Your task to perform on an android device: Go to sound settings Image 0: 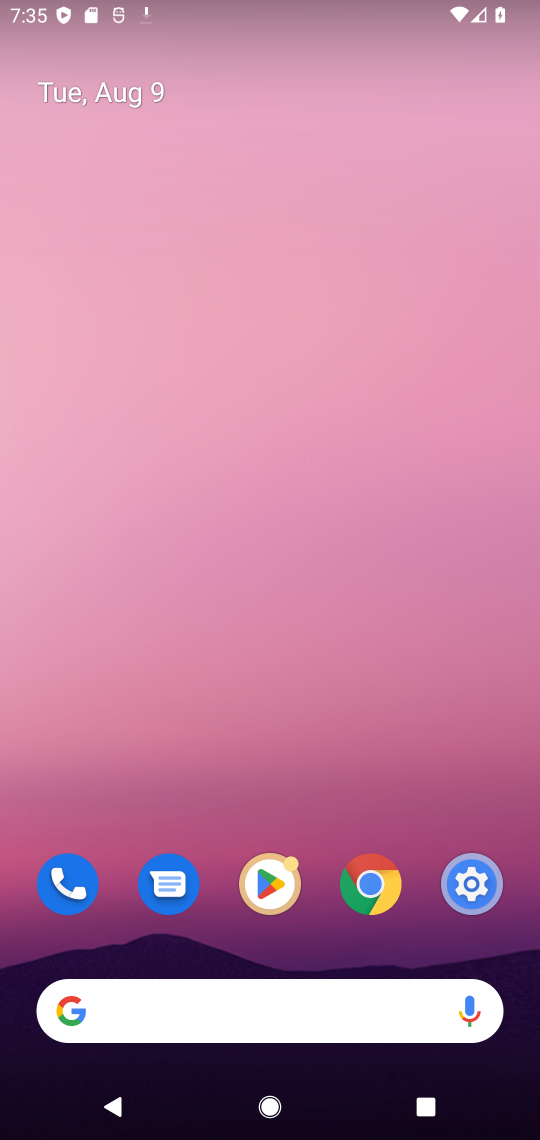
Step 0: drag from (426, 827) to (224, 225)
Your task to perform on an android device: Go to sound settings Image 1: 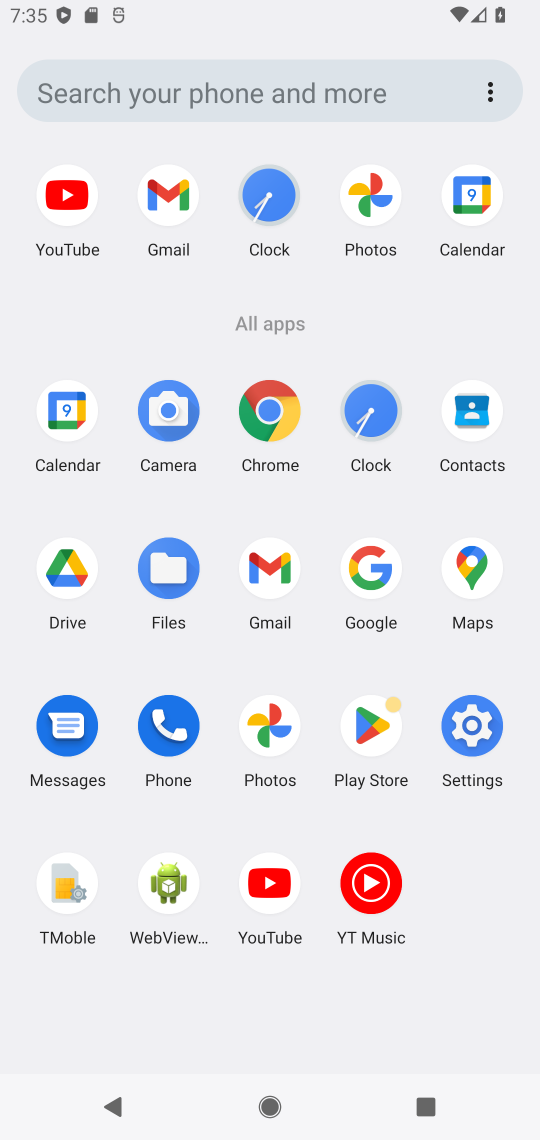
Step 1: click (437, 754)
Your task to perform on an android device: Go to sound settings Image 2: 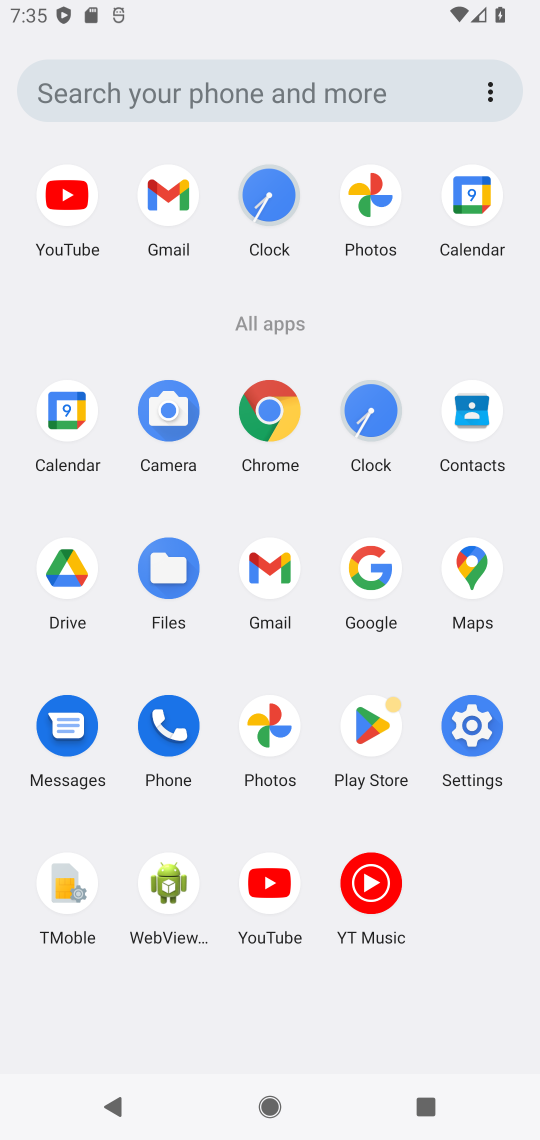
Step 2: click (437, 754)
Your task to perform on an android device: Go to sound settings Image 3: 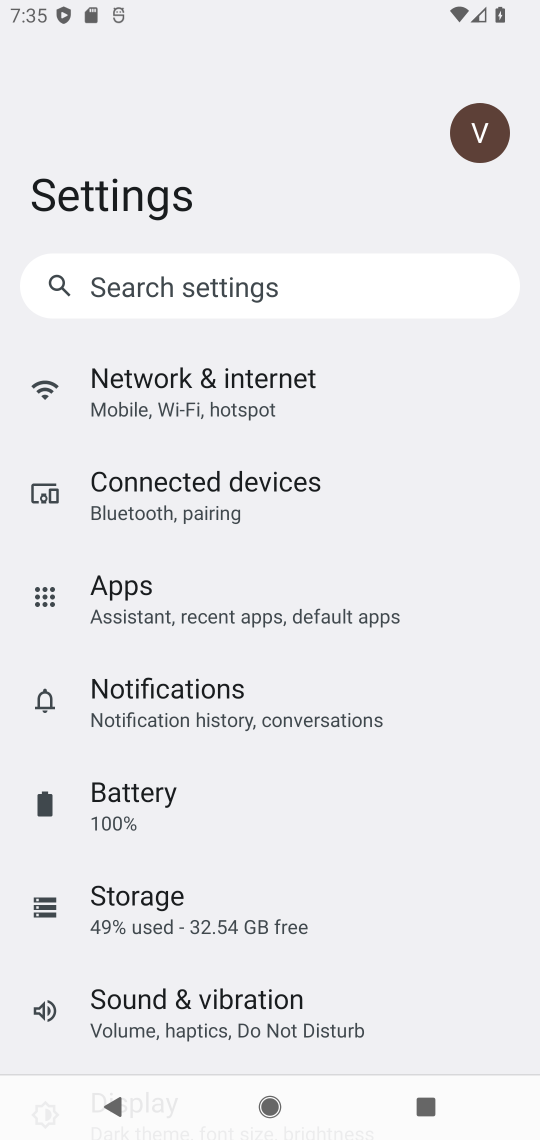
Step 3: drag from (425, 835) to (384, 759)
Your task to perform on an android device: Go to sound settings Image 4: 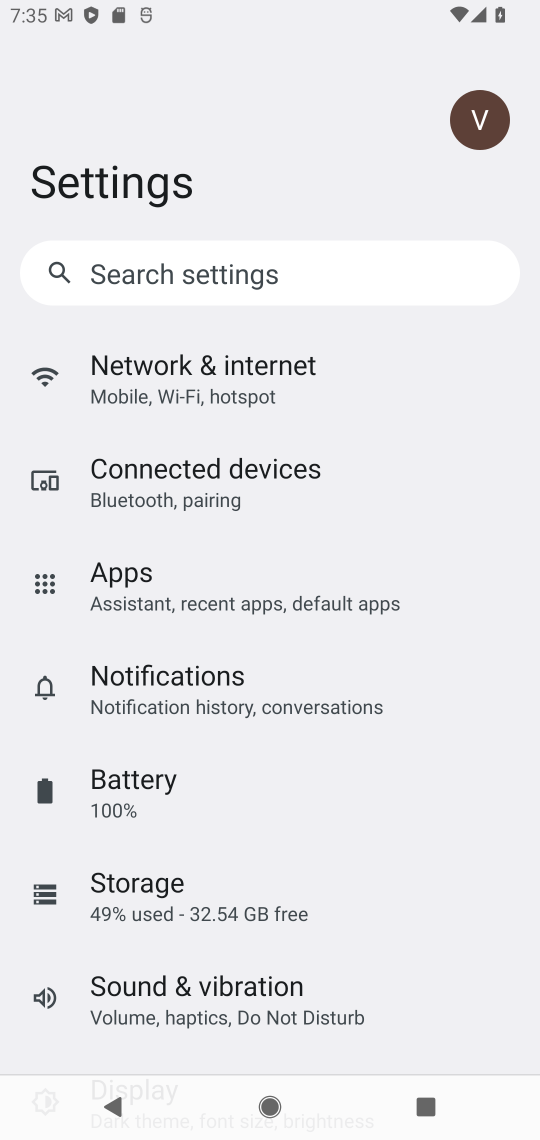
Step 4: drag from (371, 908) to (162, 258)
Your task to perform on an android device: Go to sound settings Image 5: 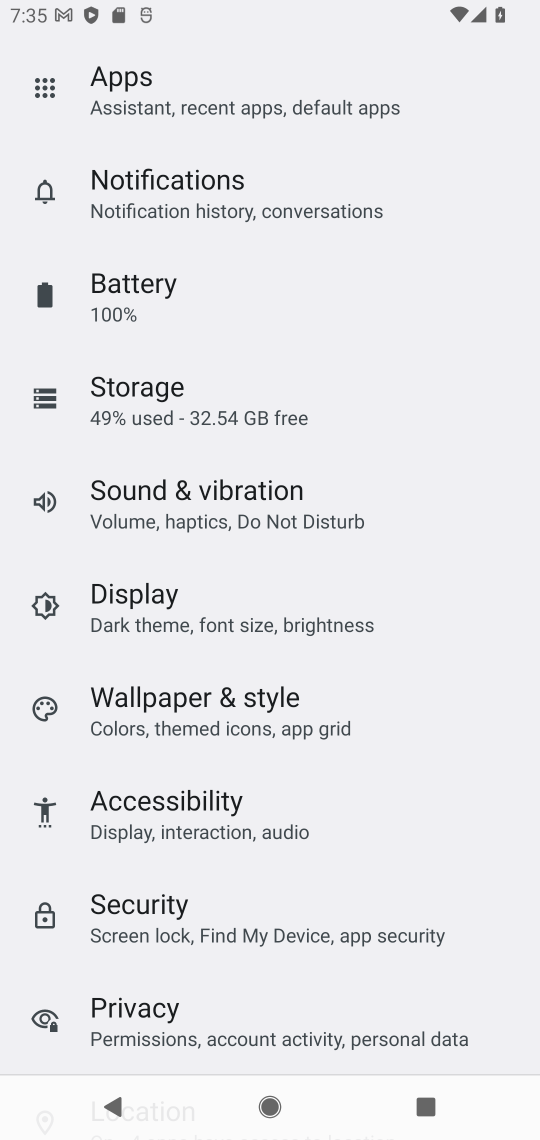
Step 5: drag from (323, 922) to (165, 521)
Your task to perform on an android device: Go to sound settings Image 6: 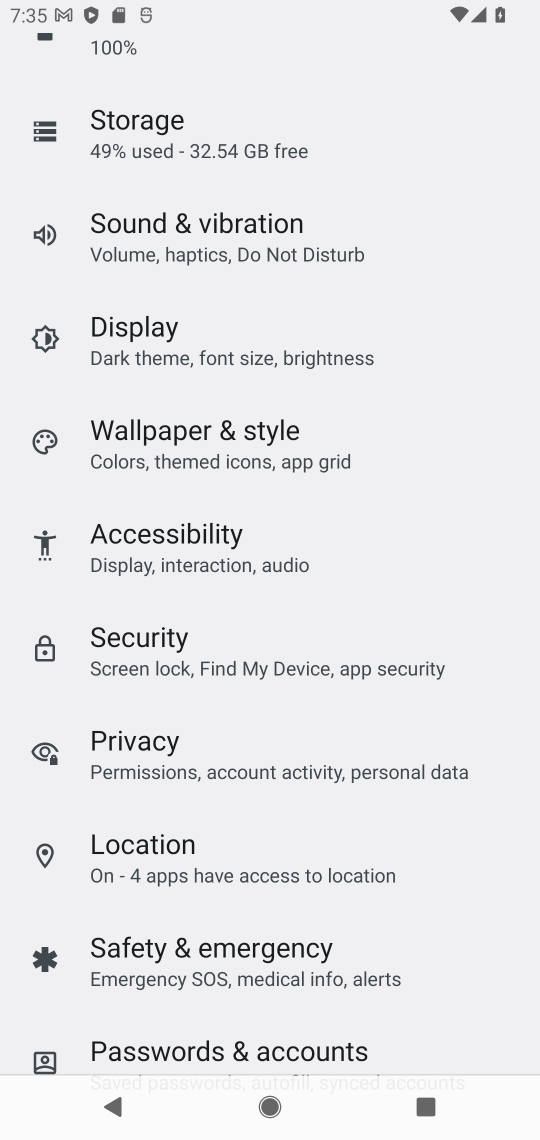
Step 6: click (199, 210)
Your task to perform on an android device: Go to sound settings Image 7: 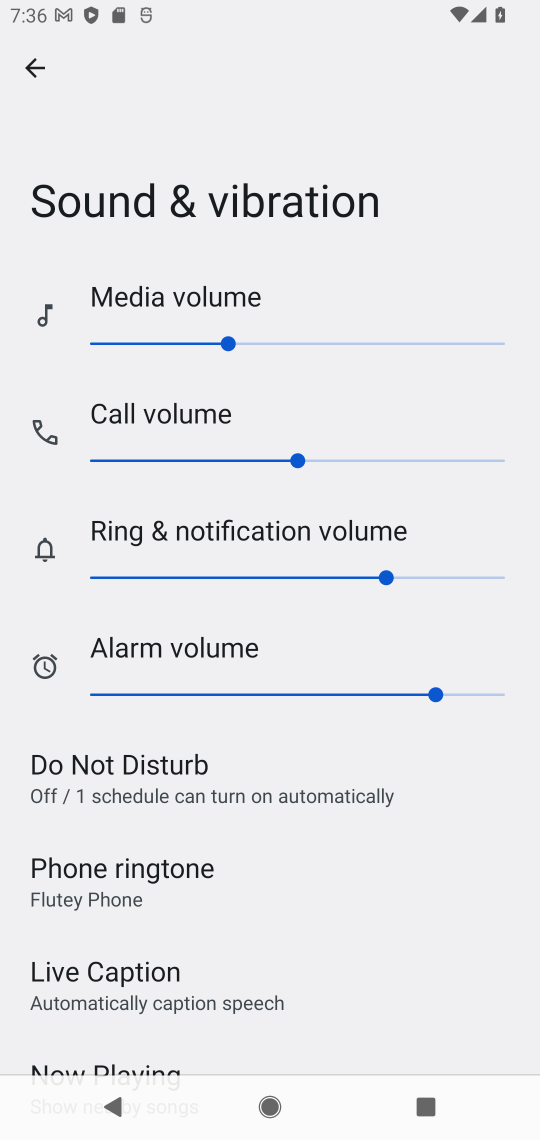
Step 7: task complete